Your task to perform on an android device: toggle data saver in the chrome app Image 0: 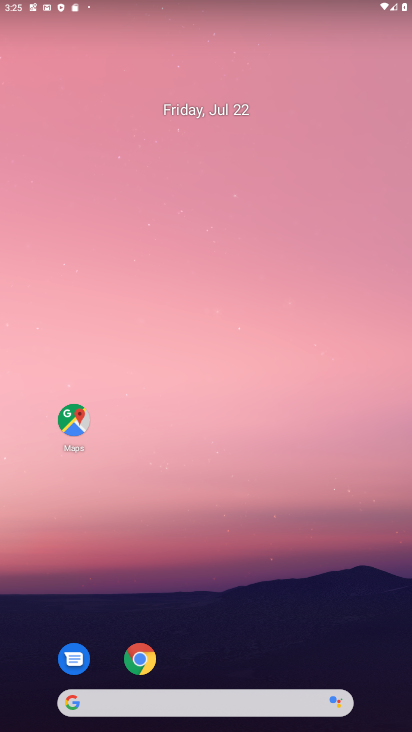
Step 0: click (128, 657)
Your task to perform on an android device: toggle data saver in the chrome app Image 1: 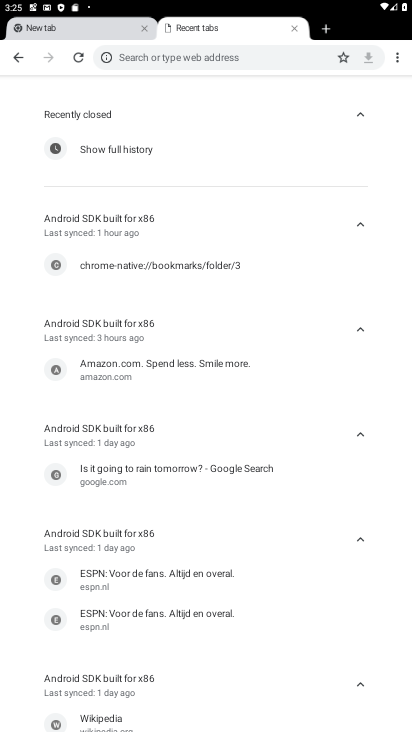
Step 1: click (403, 61)
Your task to perform on an android device: toggle data saver in the chrome app Image 2: 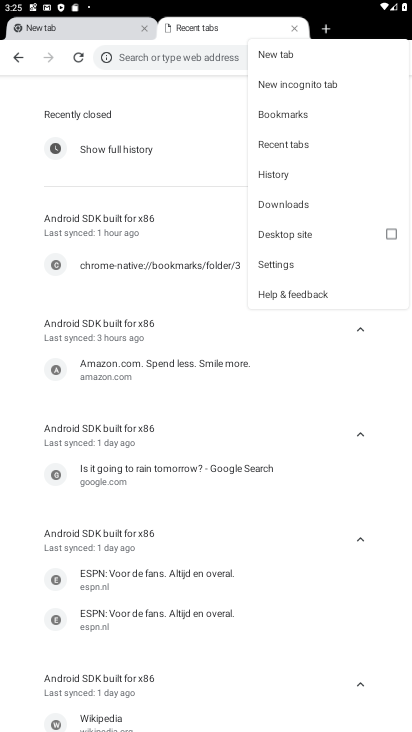
Step 2: click (275, 268)
Your task to perform on an android device: toggle data saver in the chrome app Image 3: 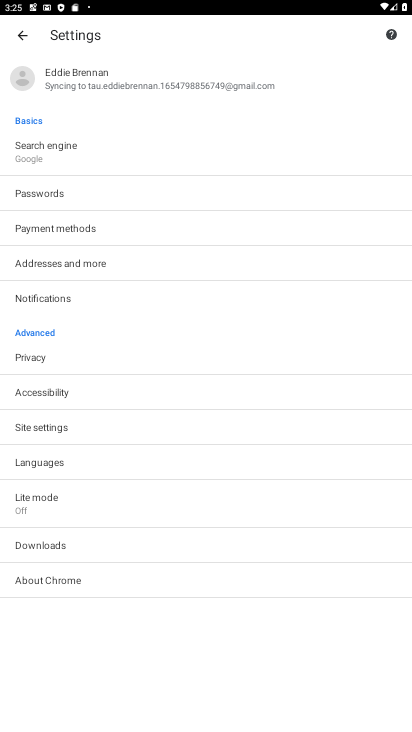
Step 3: click (57, 490)
Your task to perform on an android device: toggle data saver in the chrome app Image 4: 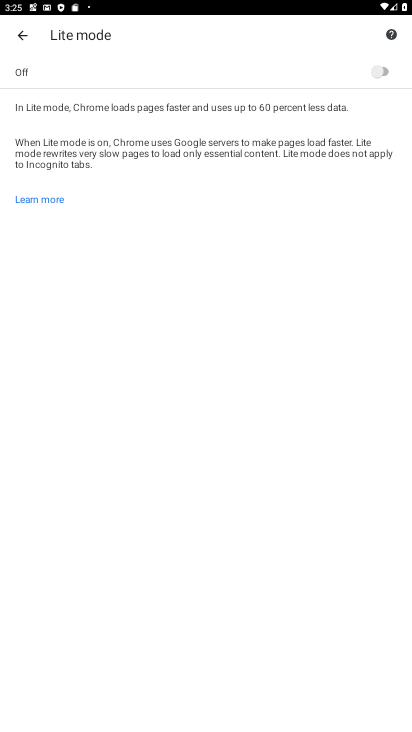
Step 4: click (389, 73)
Your task to perform on an android device: toggle data saver in the chrome app Image 5: 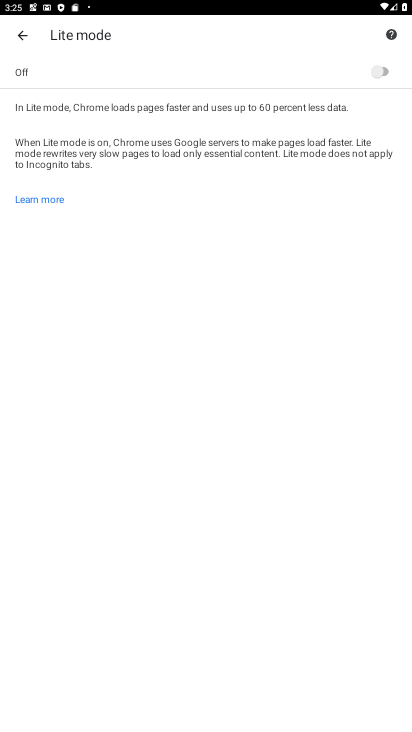
Step 5: click (389, 73)
Your task to perform on an android device: toggle data saver in the chrome app Image 6: 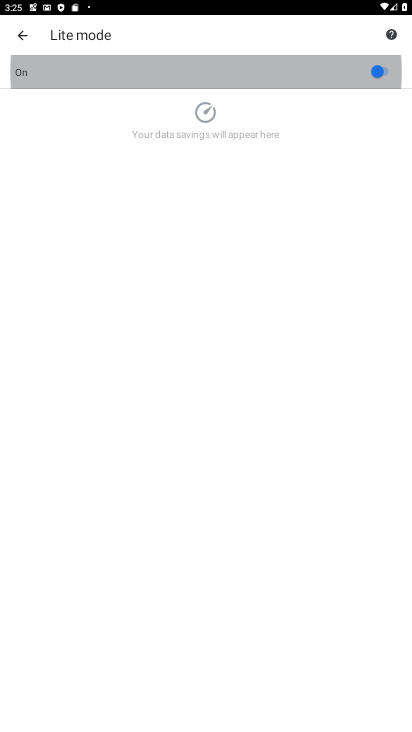
Step 6: click (389, 73)
Your task to perform on an android device: toggle data saver in the chrome app Image 7: 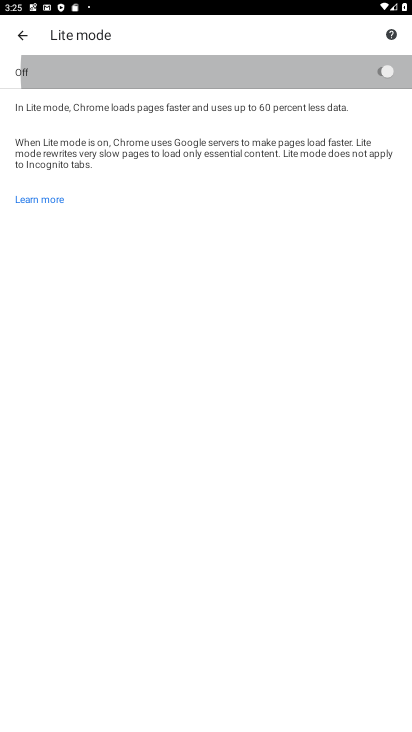
Step 7: click (389, 73)
Your task to perform on an android device: toggle data saver in the chrome app Image 8: 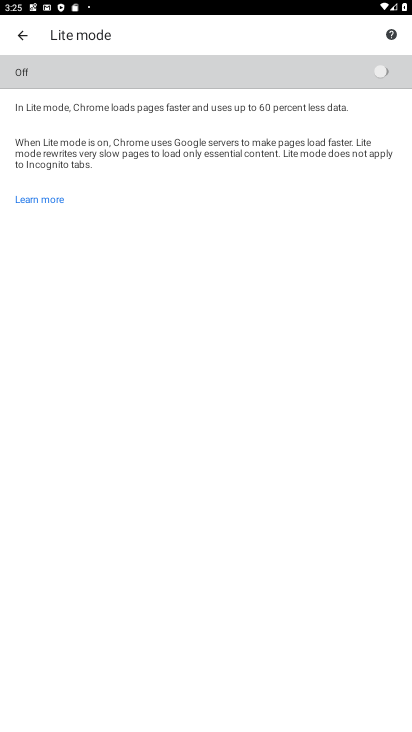
Step 8: click (389, 73)
Your task to perform on an android device: toggle data saver in the chrome app Image 9: 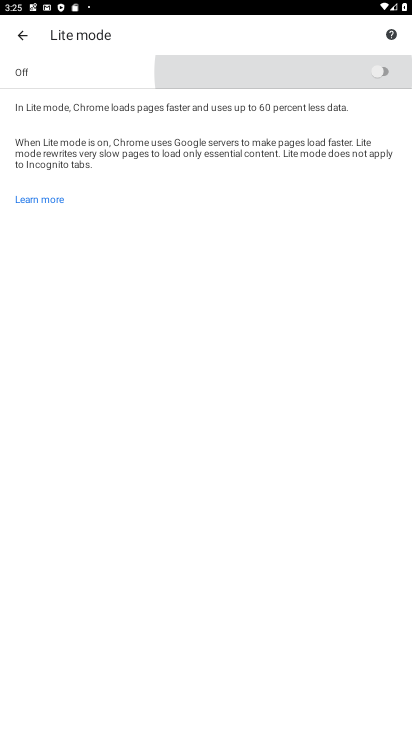
Step 9: click (389, 73)
Your task to perform on an android device: toggle data saver in the chrome app Image 10: 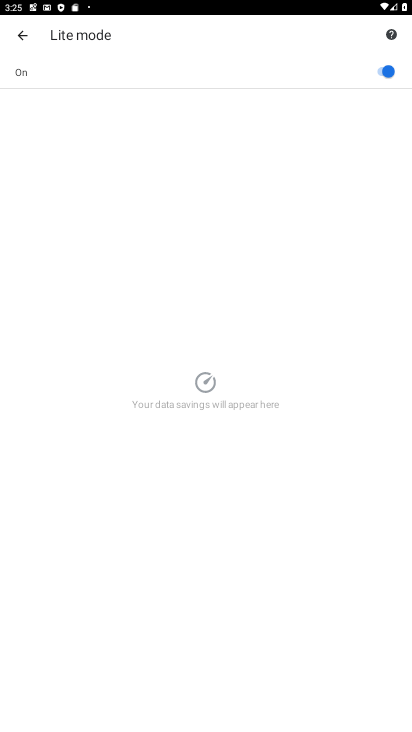
Step 10: task complete